Your task to perform on an android device: What is the news today? Image 0: 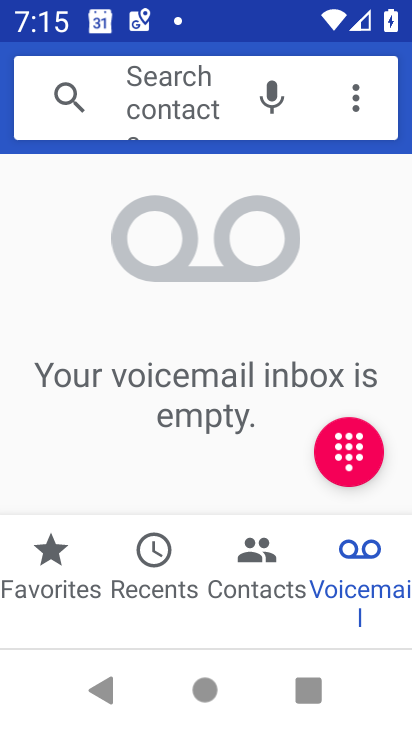
Step 0: press home button
Your task to perform on an android device: What is the news today? Image 1: 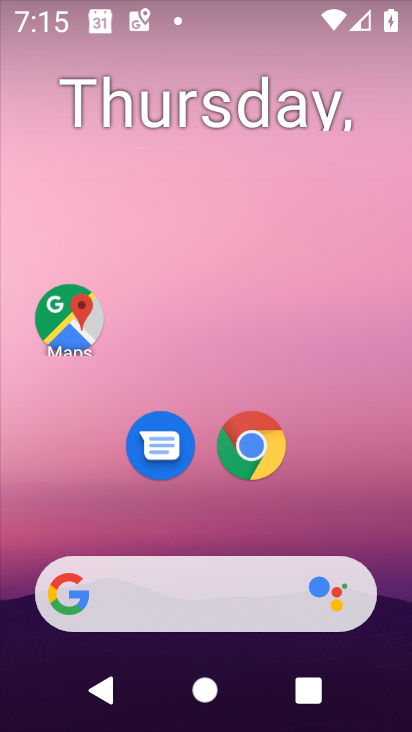
Step 1: drag from (388, 623) to (263, 53)
Your task to perform on an android device: What is the news today? Image 2: 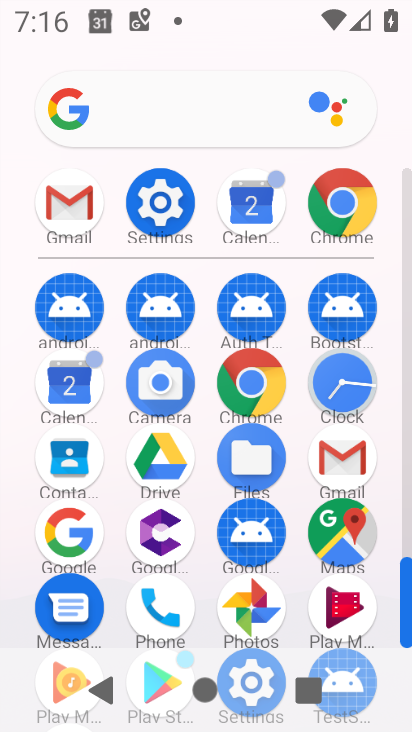
Step 2: click (70, 547)
Your task to perform on an android device: What is the news today? Image 3: 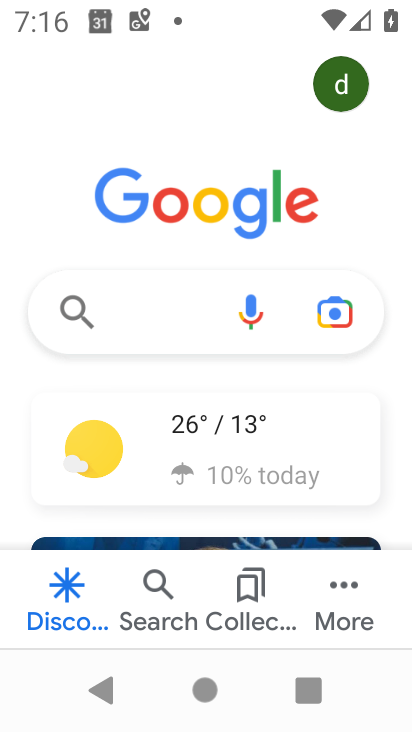
Step 3: click (136, 319)
Your task to perform on an android device: What is the news today? Image 4: 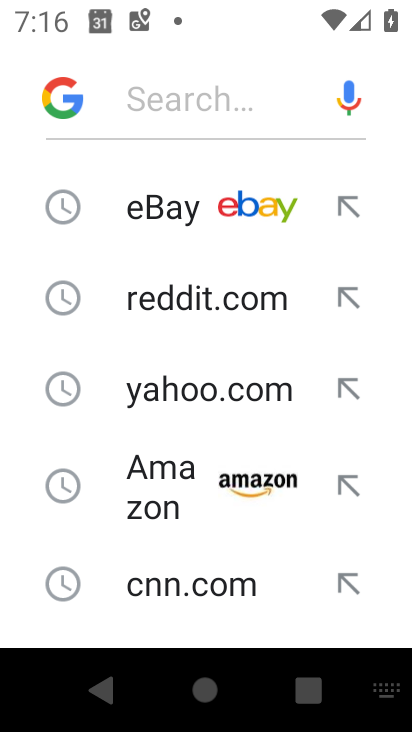
Step 4: drag from (144, 547) to (206, 137)
Your task to perform on an android device: What is the news today? Image 5: 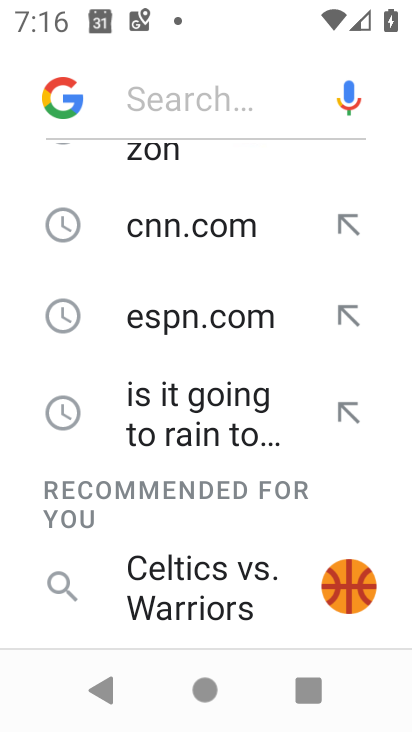
Step 5: drag from (185, 191) to (160, 666)
Your task to perform on an android device: What is the news today? Image 6: 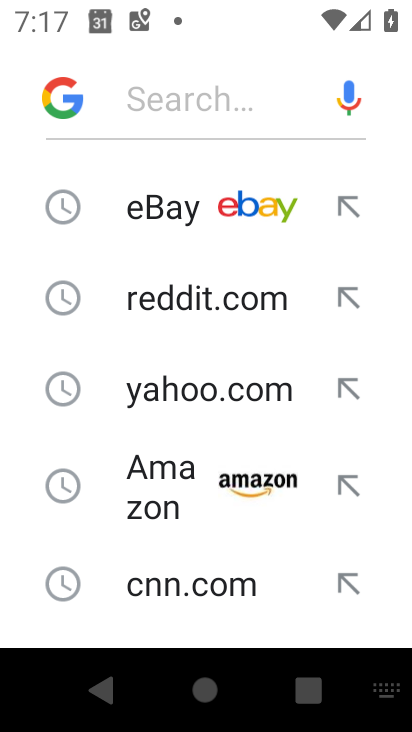
Step 6: type "what is the news today?"
Your task to perform on an android device: What is the news today? Image 7: 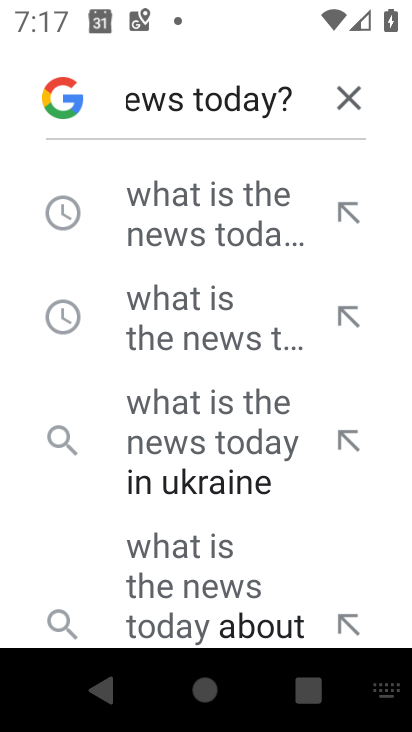
Step 7: click (162, 220)
Your task to perform on an android device: What is the news today? Image 8: 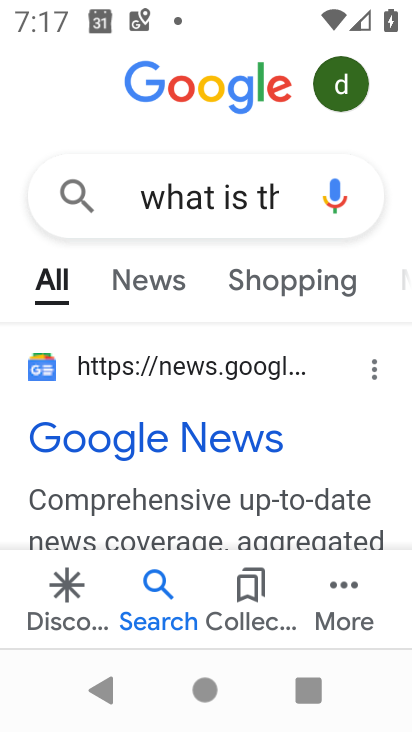
Step 8: click (289, 425)
Your task to perform on an android device: What is the news today? Image 9: 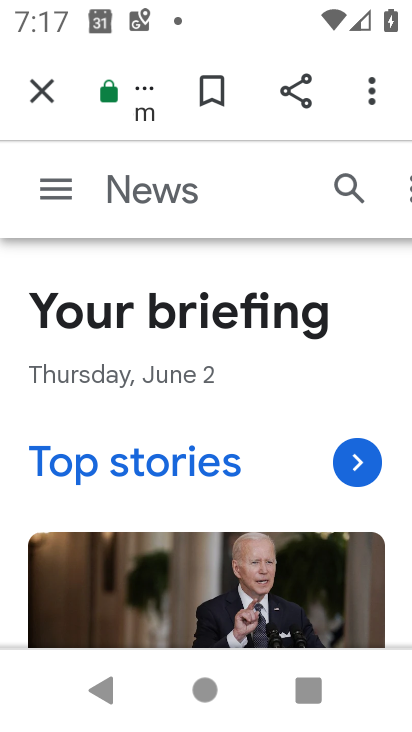
Step 9: task complete